Your task to perform on an android device: Go to internet settings Image 0: 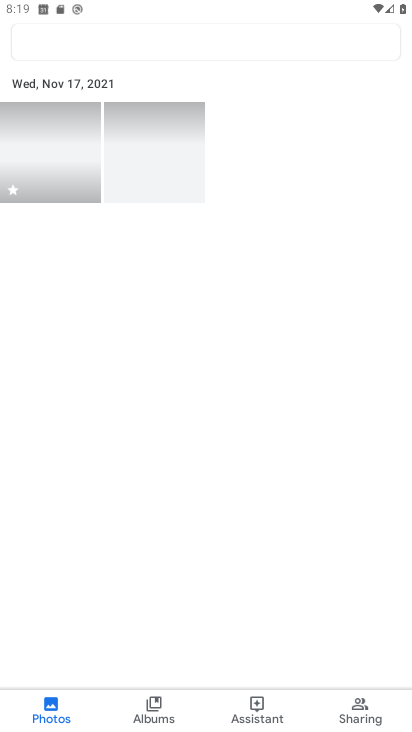
Step 0: press home button
Your task to perform on an android device: Go to internet settings Image 1: 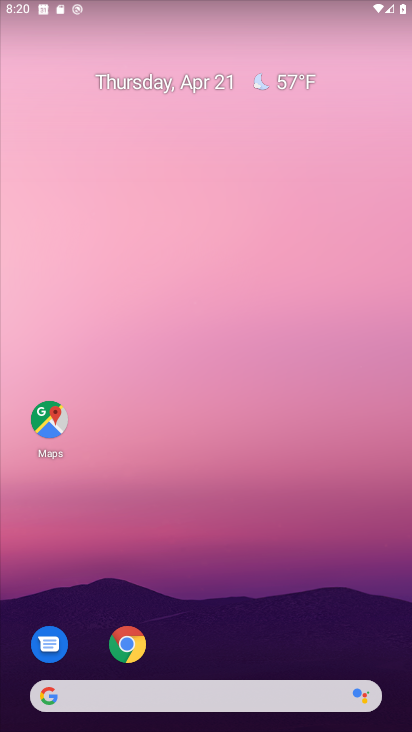
Step 1: drag from (240, 609) to (209, 4)
Your task to perform on an android device: Go to internet settings Image 2: 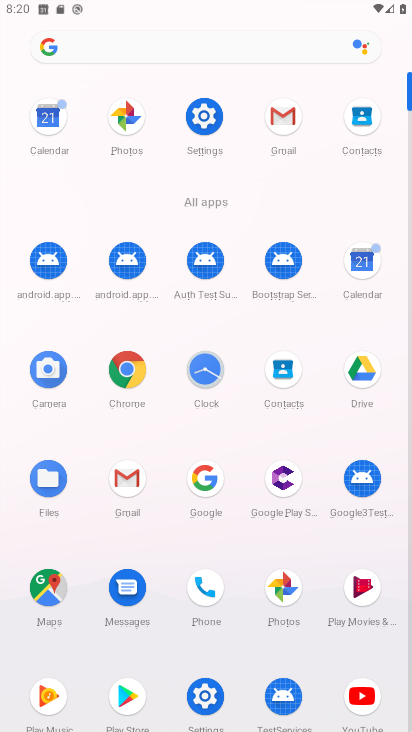
Step 2: click (203, 110)
Your task to perform on an android device: Go to internet settings Image 3: 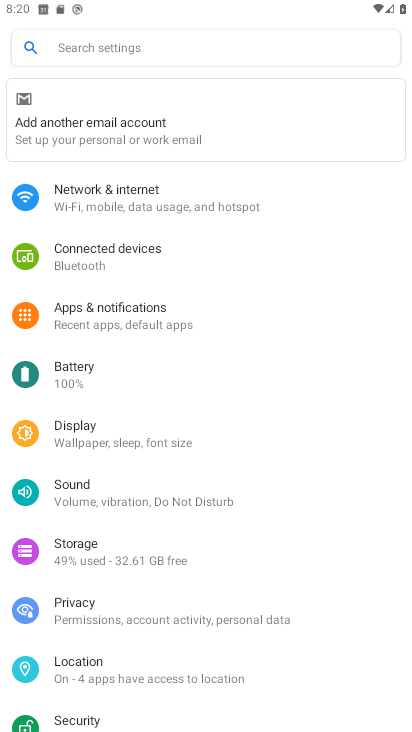
Step 3: click (133, 198)
Your task to perform on an android device: Go to internet settings Image 4: 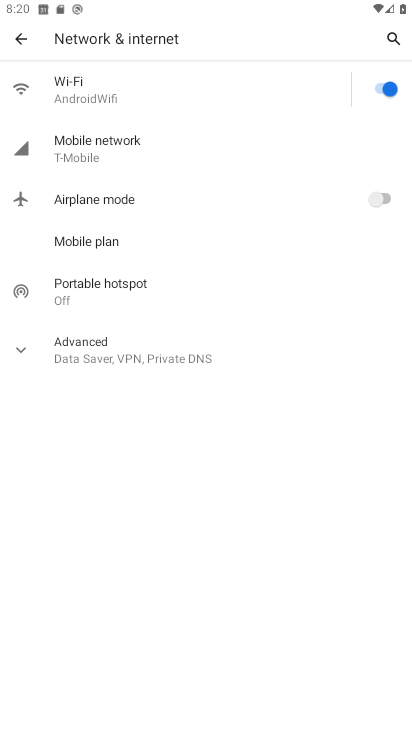
Step 4: task complete